Your task to perform on an android device: Go to display settings Image 0: 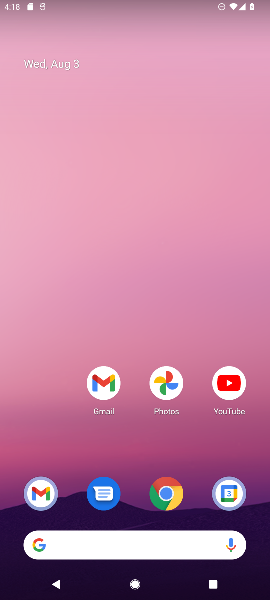
Step 0: press home button
Your task to perform on an android device: Go to display settings Image 1: 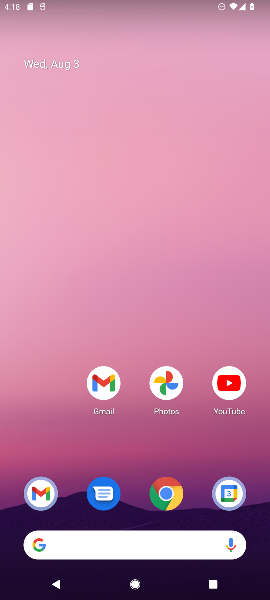
Step 1: drag from (53, 442) to (52, 111)
Your task to perform on an android device: Go to display settings Image 2: 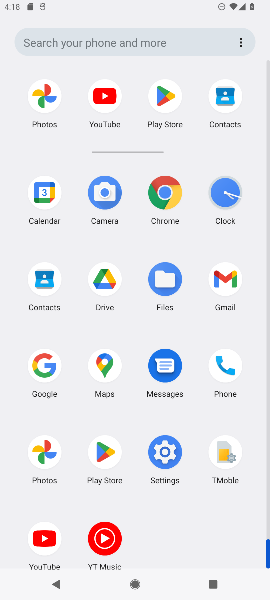
Step 2: click (170, 457)
Your task to perform on an android device: Go to display settings Image 3: 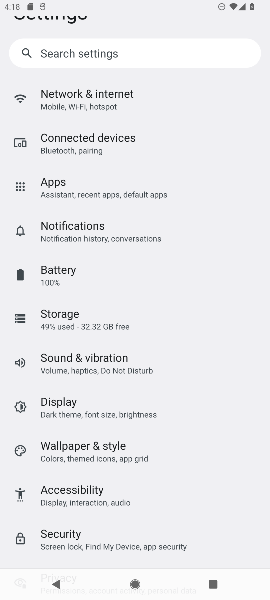
Step 3: drag from (194, 468) to (211, 327)
Your task to perform on an android device: Go to display settings Image 4: 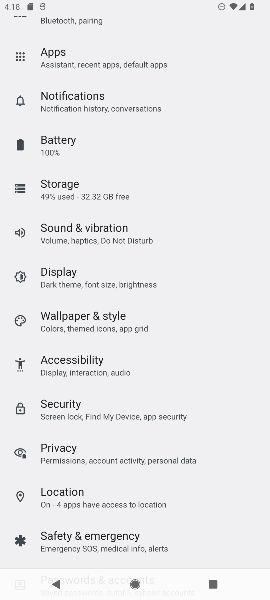
Step 4: drag from (223, 478) to (232, 372)
Your task to perform on an android device: Go to display settings Image 5: 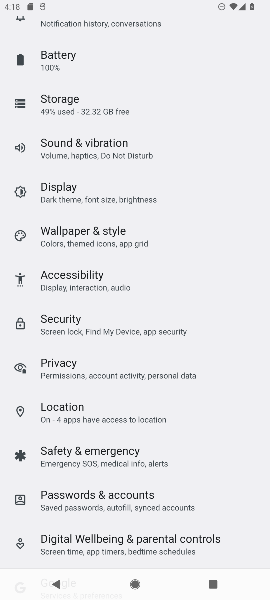
Step 5: drag from (215, 490) to (229, 380)
Your task to perform on an android device: Go to display settings Image 6: 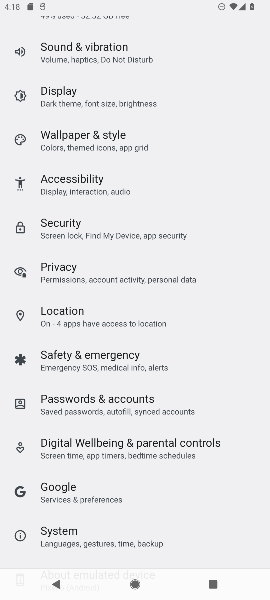
Step 6: drag from (224, 499) to (238, 410)
Your task to perform on an android device: Go to display settings Image 7: 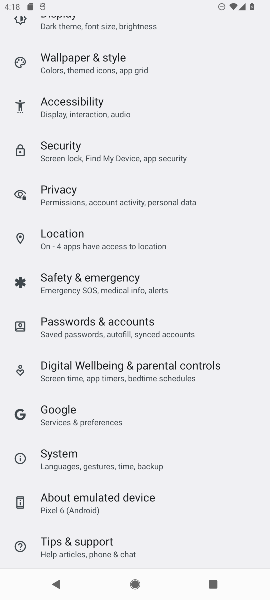
Step 7: drag from (221, 498) to (221, 378)
Your task to perform on an android device: Go to display settings Image 8: 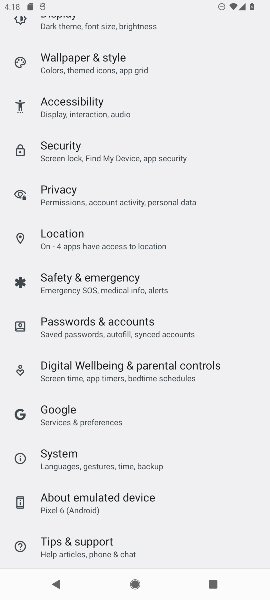
Step 8: drag from (226, 241) to (226, 395)
Your task to perform on an android device: Go to display settings Image 9: 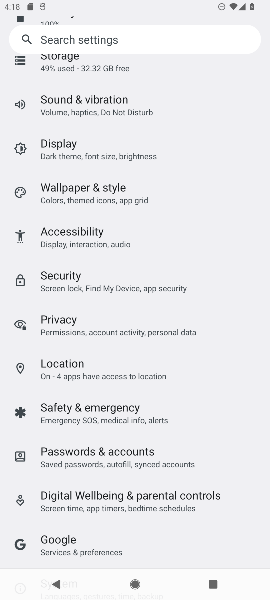
Step 9: drag from (222, 207) to (233, 375)
Your task to perform on an android device: Go to display settings Image 10: 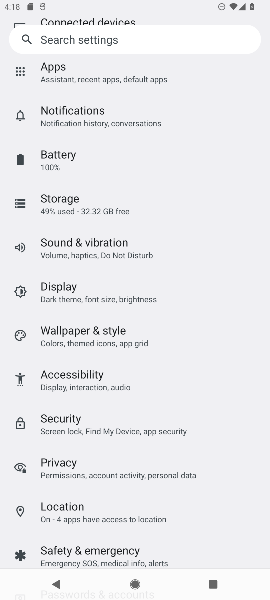
Step 10: drag from (222, 175) to (219, 365)
Your task to perform on an android device: Go to display settings Image 11: 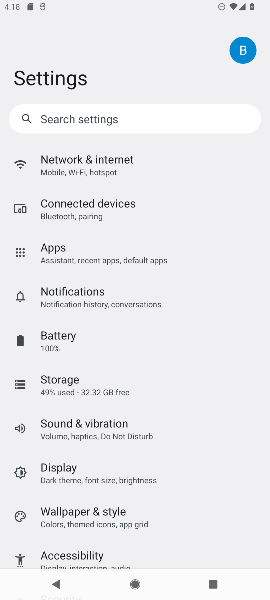
Step 11: drag from (210, 193) to (213, 339)
Your task to perform on an android device: Go to display settings Image 12: 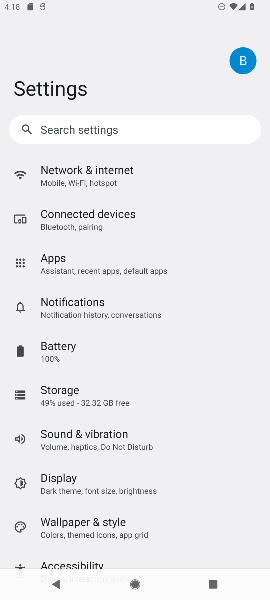
Step 12: drag from (210, 427) to (214, 337)
Your task to perform on an android device: Go to display settings Image 13: 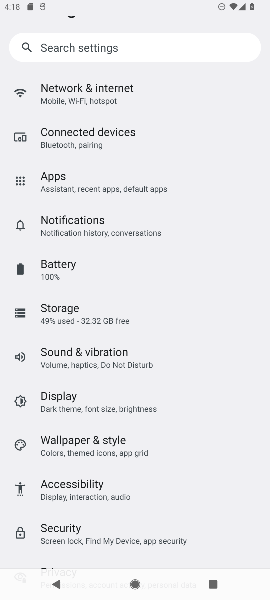
Step 13: drag from (204, 455) to (204, 346)
Your task to perform on an android device: Go to display settings Image 14: 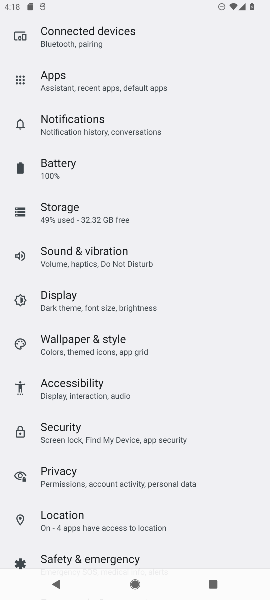
Step 14: click (147, 300)
Your task to perform on an android device: Go to display settings Image 15: 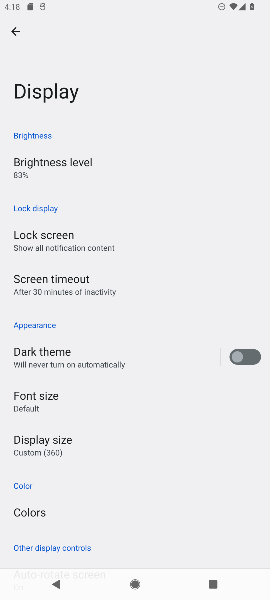
Step 15: task complete